Your task to perform on an android device: turn off smart reply in the gmail app Image 0: 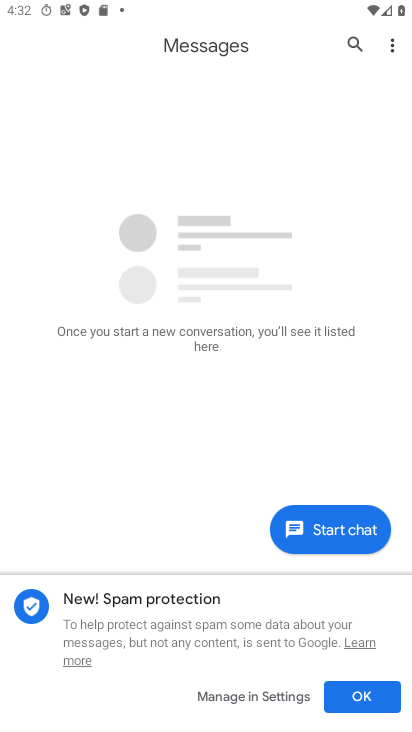
Step 0: press home button
Your task to perform on an android device: turn off smart reply in the gmail app Image 1: 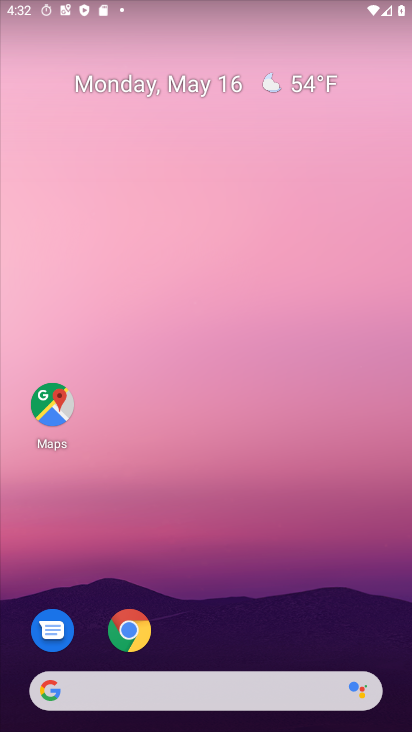
Step 1: drag from (245, 624) to (269, 326)
Your task to perform on an android device: turn off smart reply in the gmail app Image 2: 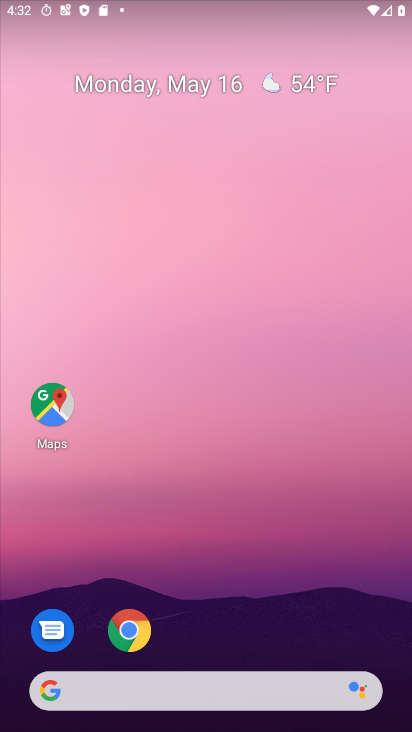
Step 2: drag from (225, 637) to (222, 272)
Your task to perform on an android device: turn off smart reply in the gmail app Image 3: 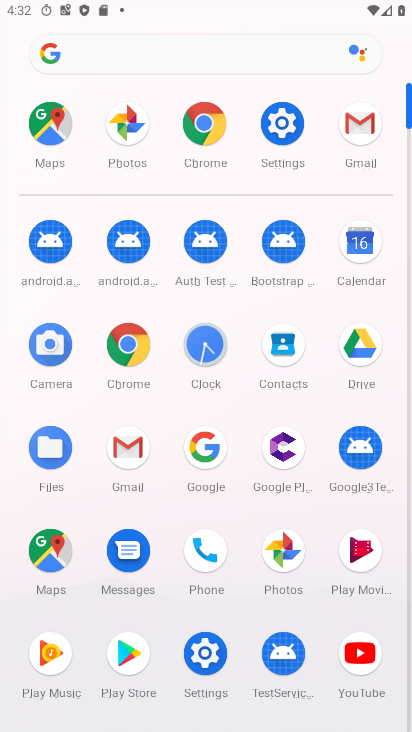
Step 3: click (357, 123)
Your task to perform on an android device: turn off smart reply in the gmail app Image 4: 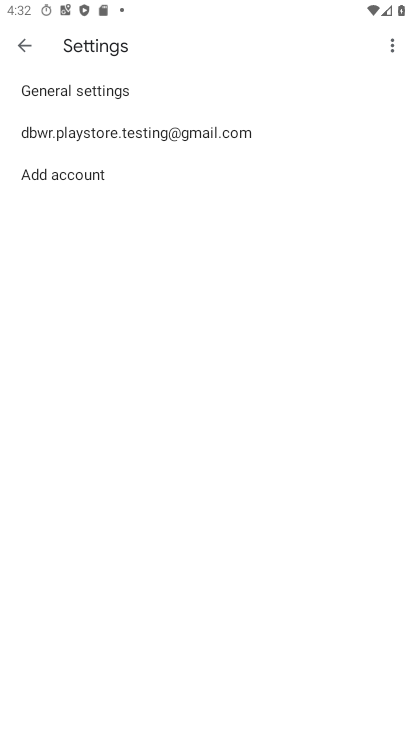
Step 4: click (357, 123)
Your task to perform on an android device: turn off smart reply in the gmail app Image 5: 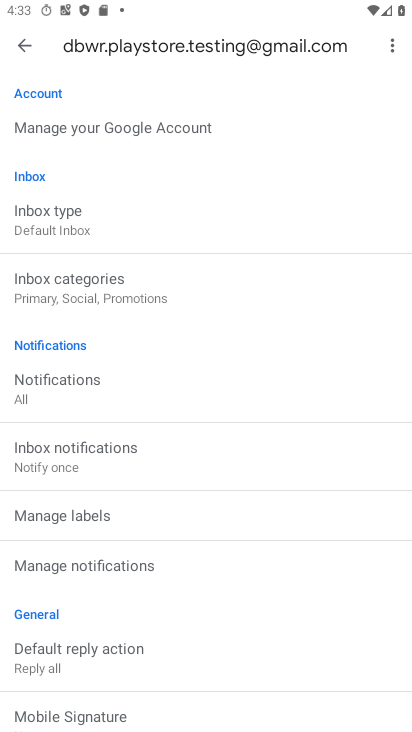
Step 5: task complete